Your task to perform on an android device: Show me productivity apps on the Play Store Image 0: 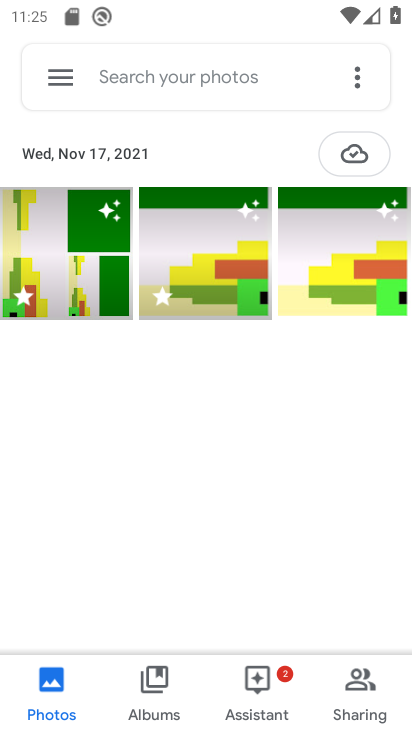
Step 0: press home button
Your task to perform on an android device: Show me productivity apps on the Play Store Image 1: 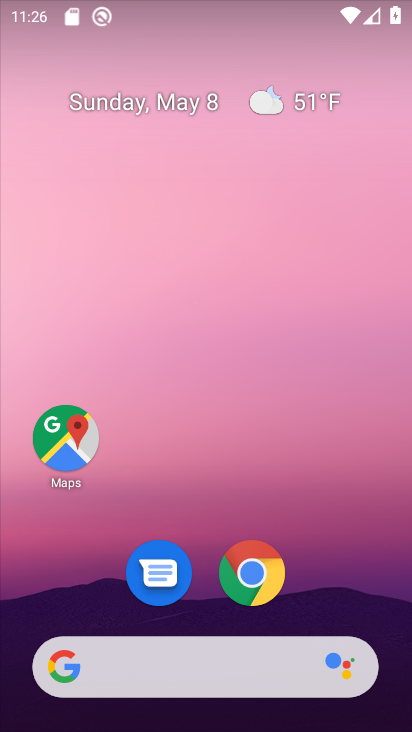
Step 1: drag from (178, 639) to (180, 237)
Your task to perform on an android device: Show me productivity apps on the Play Store Image 2: 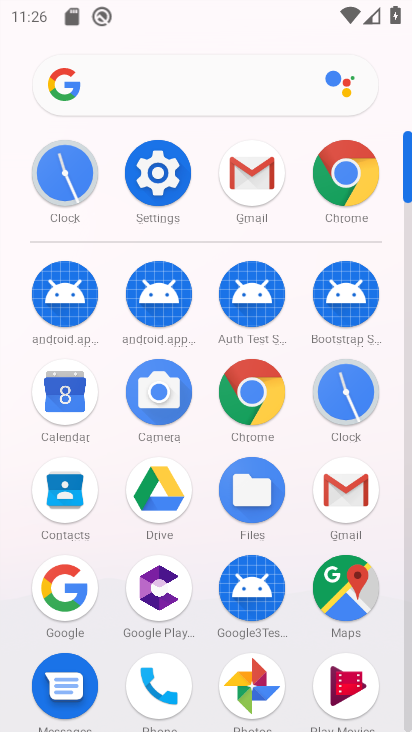
Step 2: drag from (197, 671) to (224, 302)
Your task to perform on an android device: Show me productivity apps on the Play Store Image 3: 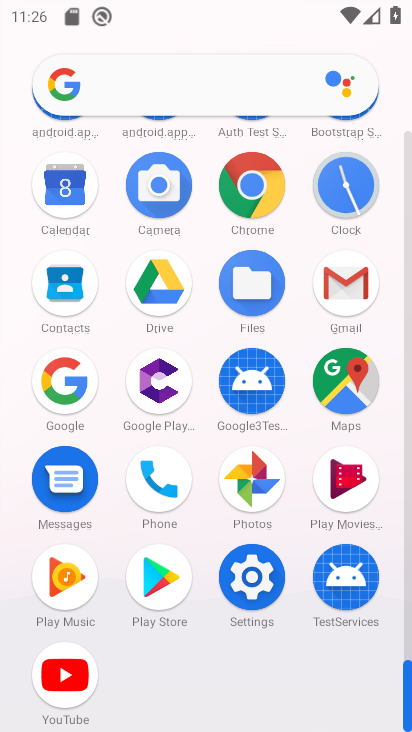
Step 3: click (164, 578)
Your task to perform on an android device: Show me productivity apps on the Play Store Image 4: 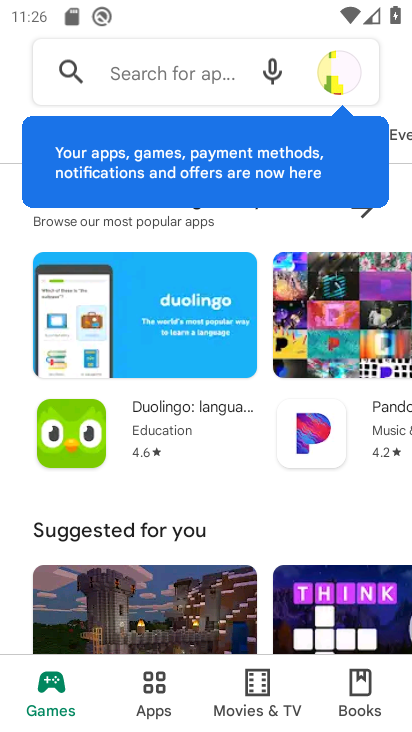
Step 4: click (164, 688)
Your task to perform on an android device: Show me productivity apps on the Play Store Image 5: 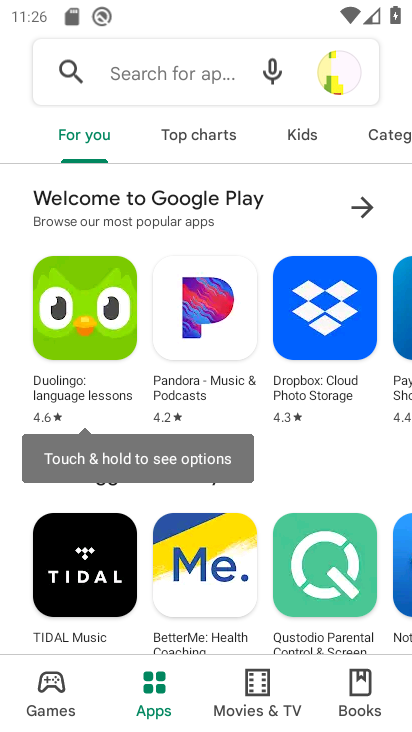
Step 5: task complete